Your task to perform on an android device: Search for the new Jordans on Nike.com Image 0: 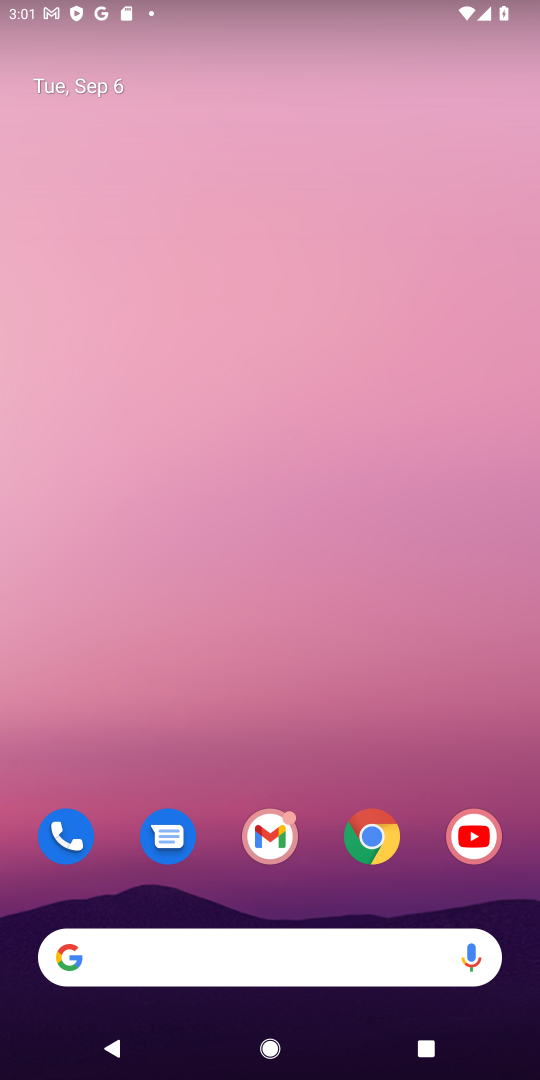
Step 0: click (317, 955)
Your task to perform on an android device: Search for the new Jordans on Nike.com Image 1: 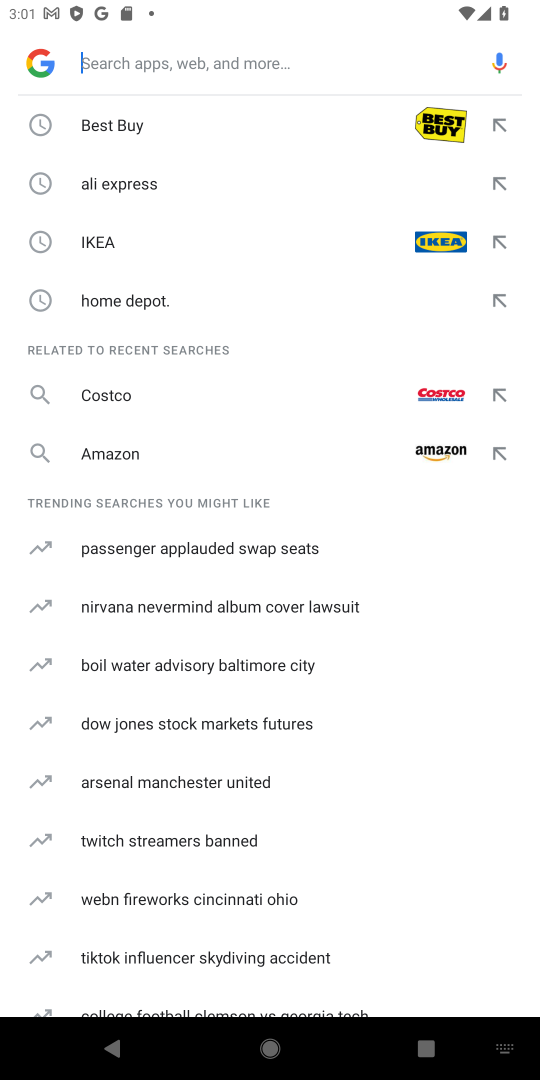
Step 1: type "nike.com"
Your task to perform on an android device: Search for the new Jordans on Nike.com Image 2: 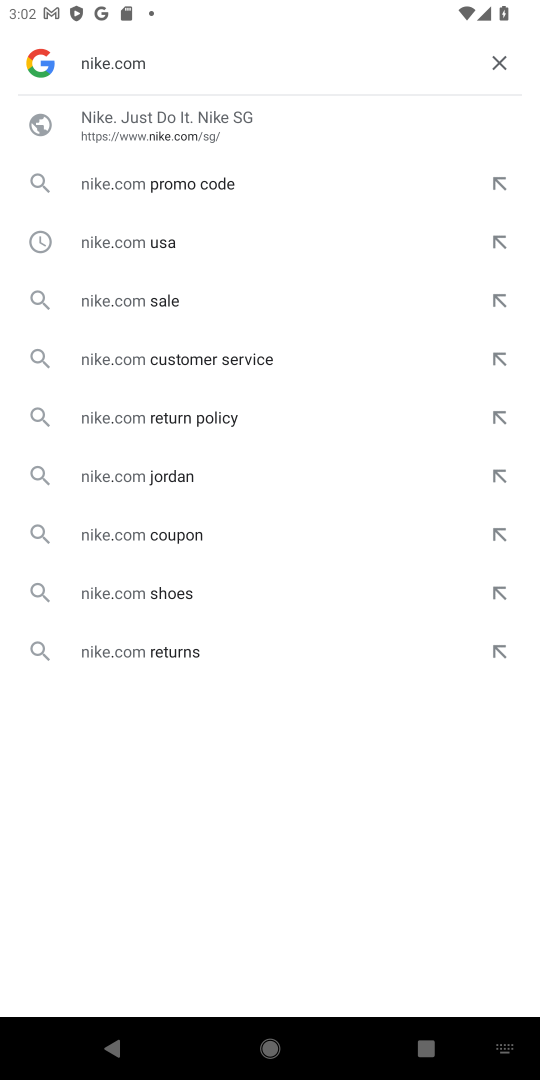
Step 2: click (107, 110)
Your task to perform on an android device: Search for the new Jordans on Nike.com Image 3: 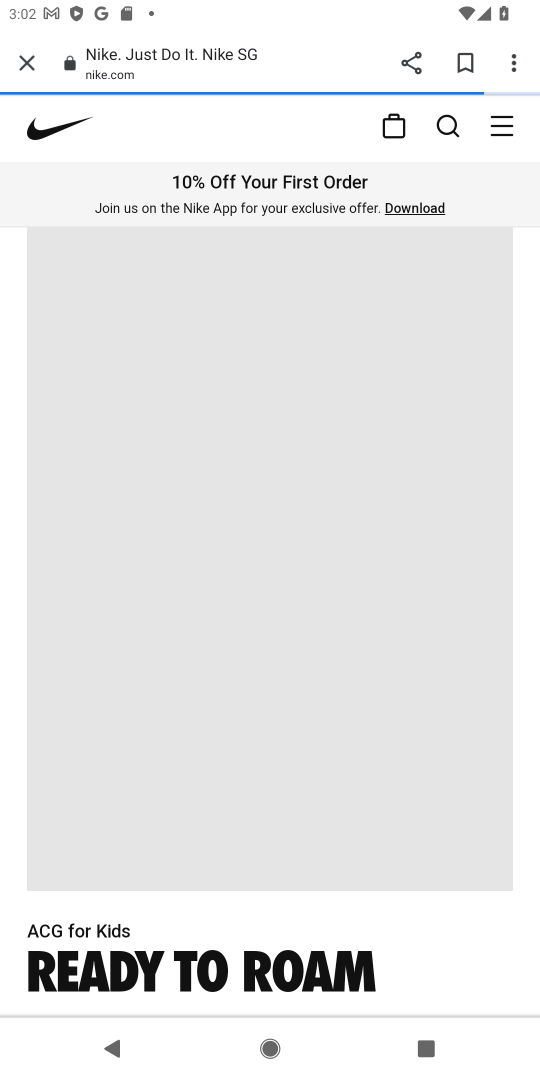
Step 3: click (451, 124)
Your task to perform on an android device: Search for the new Jordans on Nike.com Image 4: 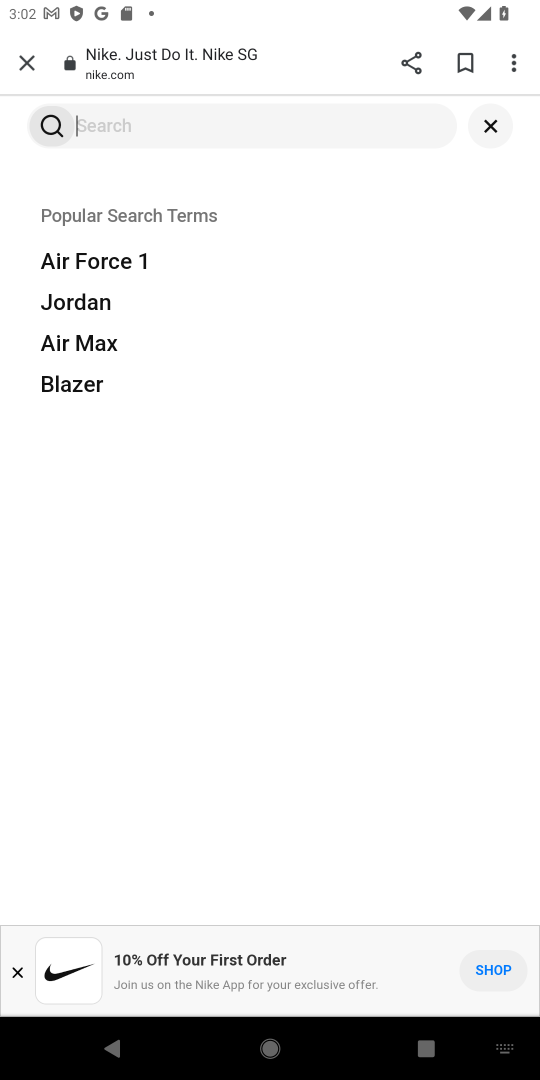
Step 4: type "new jordans "
Your task to perform on an android device: Search for the new Jordans on Nike.com Image 5: 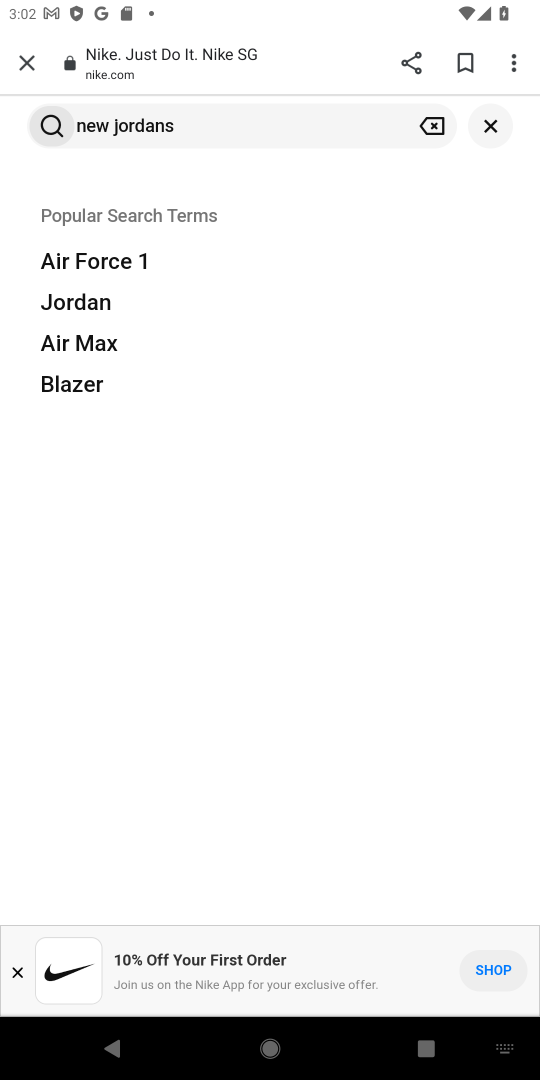
Step 5: click (51, 121)
Your task to perform on an android device: Search for the new Jordans on Nike.com Image 6: 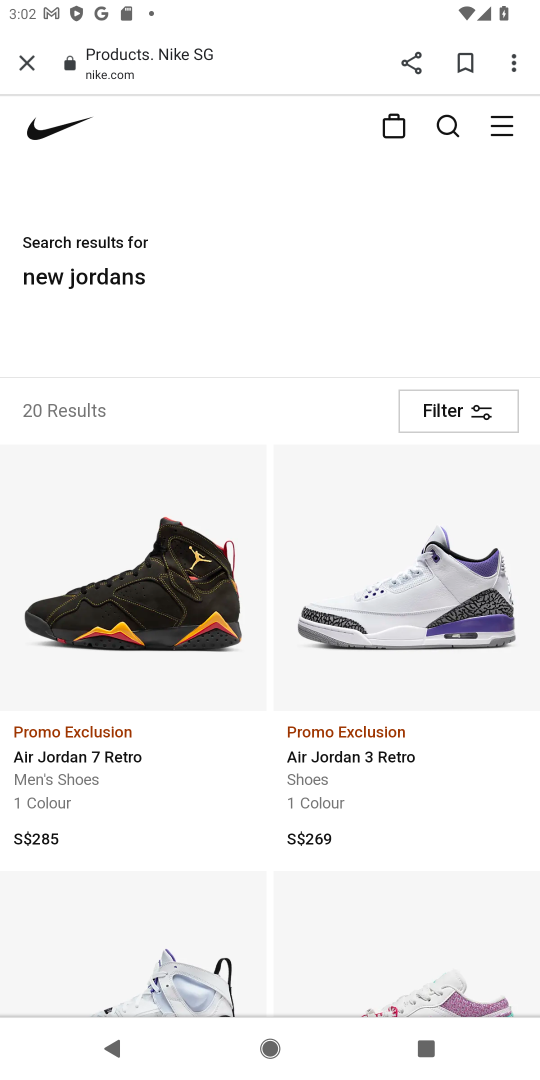
Step 6: task complete